Your task to perform on an android device: turn on priority inbox in the gmail app Image 0: 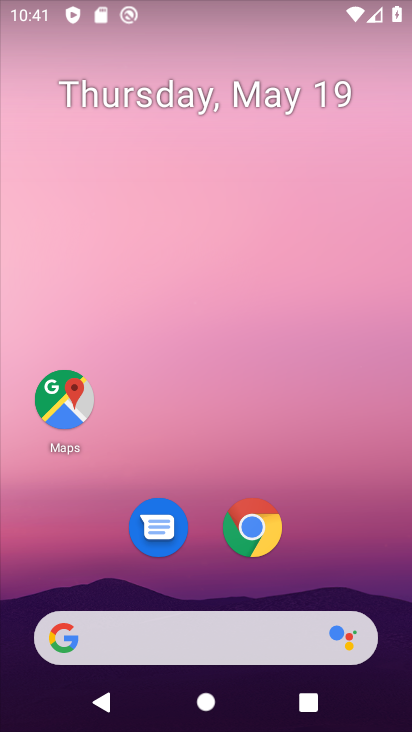
Step 0: drag from (197, 571) to (253, 55)
Your task to perform on an android device: turn on priority inbox in the gmail app Image 1: 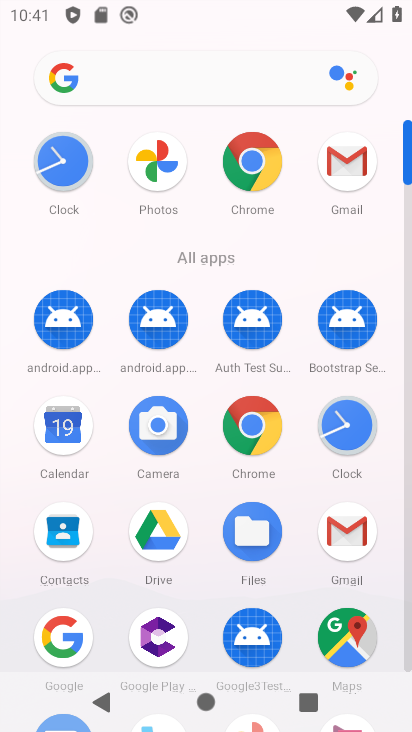
Step 1: click (323, 529)
Your task to perform on an android device: turn on priority inbox in the gmail app Image 2: 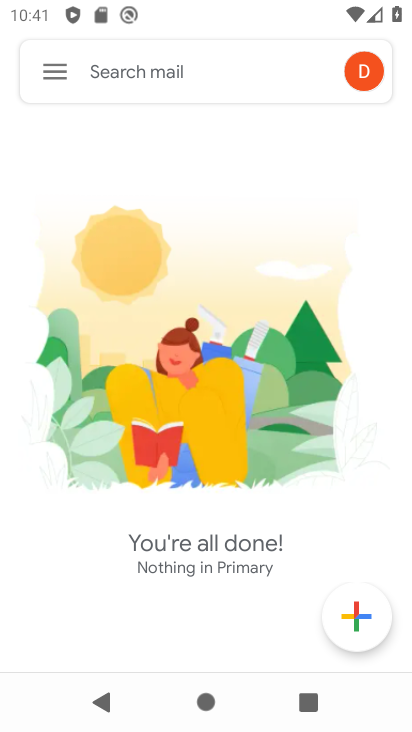
Step 2: click (54, 77)
Your task to perform on an android device: turn on priority inbox in the gmail app Image 3: 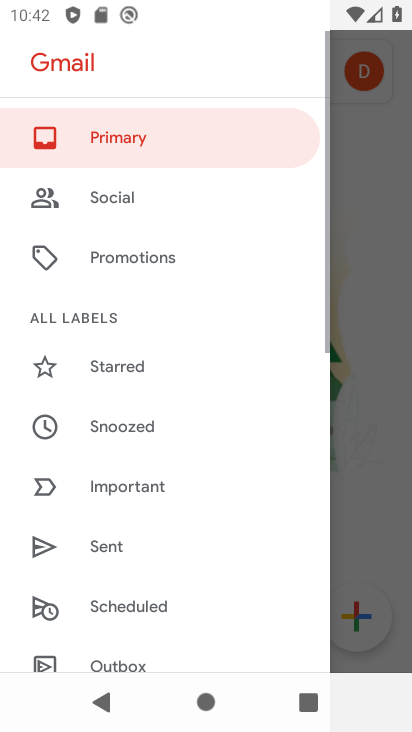
Step 3: drag from (129, 578) to (207, 99)
Your task to perform on an android device: turn on priority inbox in the gmail app Image 4: 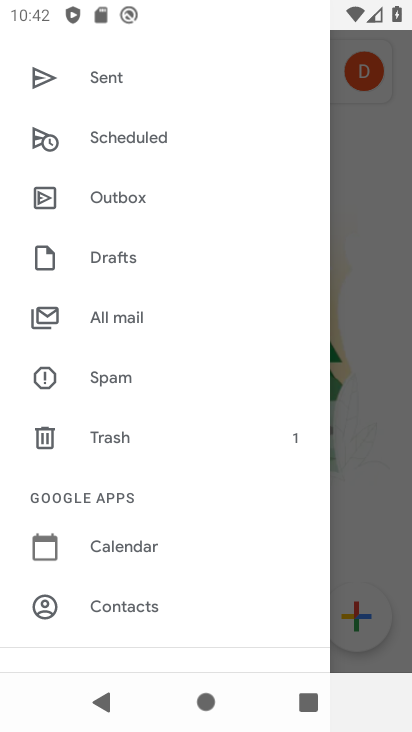
Step 4: drag from (168, 584) to (219, 269)
Your task to perform on an android device: turn on priority inbox in the gmail app Image 5: 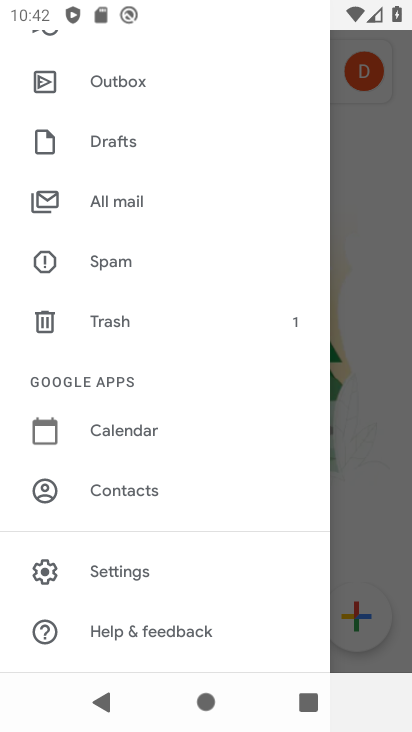
Step 5: click (119, 572)
Your task to perform on an android device: turn on priority inbox in the gmail app Image 6: 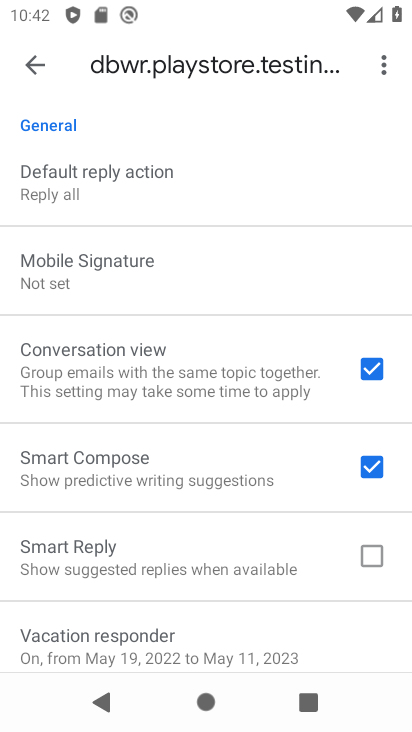
Step 6: drag from (111, 212) to (101, 717)
Your task to perform on an android device: turn on priority inbox in the gmail app Image 7: 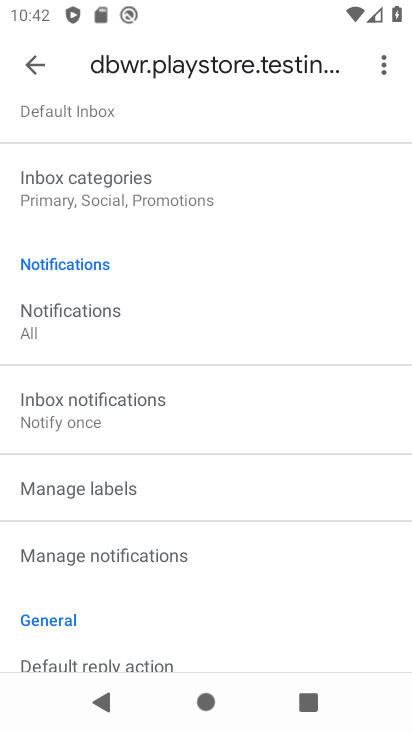
Step 7: drag from (167, 275) to (132, 662)
Your task to perform on an android device: turn on priority inbox in the gmail app Image 8: 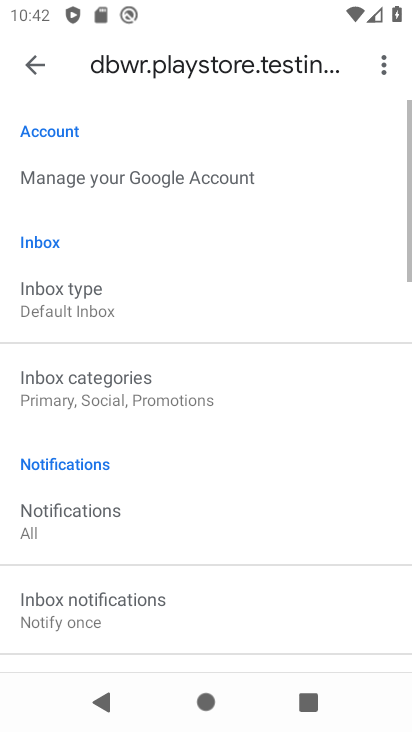
Step 8: click (120, 303)
Your task to perform on an android device: turn on priority inbox in the gmail app Image 9: 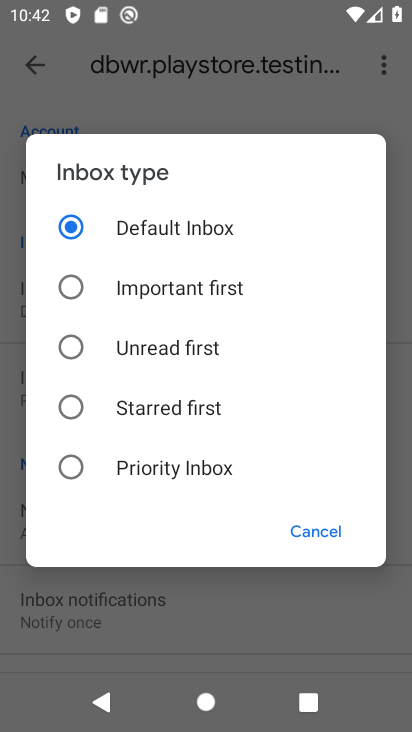
Step 9: click (125, 455)
Your task to perform on an android device: turn on priority inbox in the gmail app Image 10: 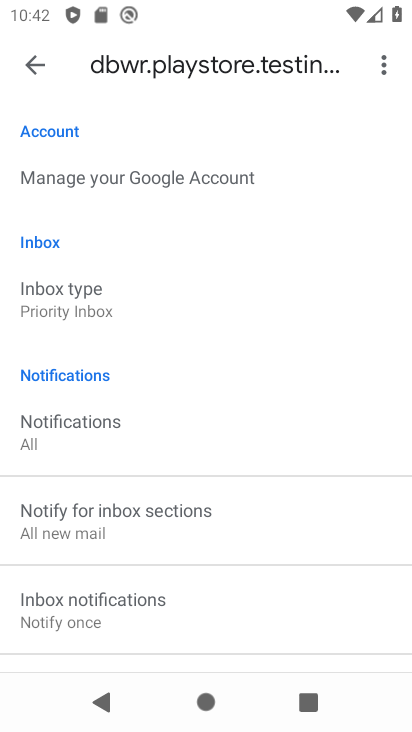
Step 10: task complete